Your task to perform on an android device: change the clock style Image 0: 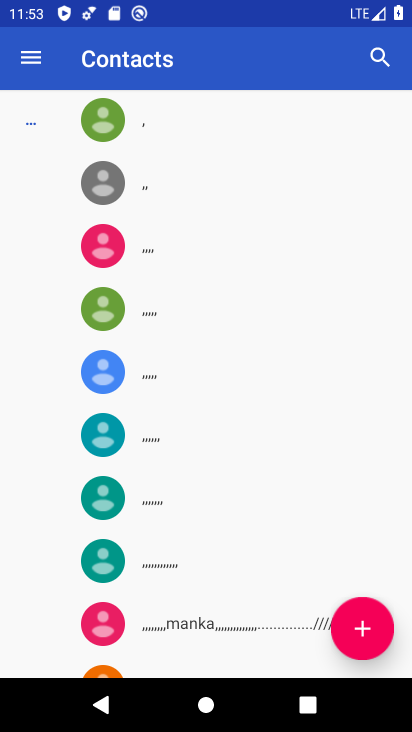
Step 0: press home button
Your task to perform on an android device: change the clock style Image 1: 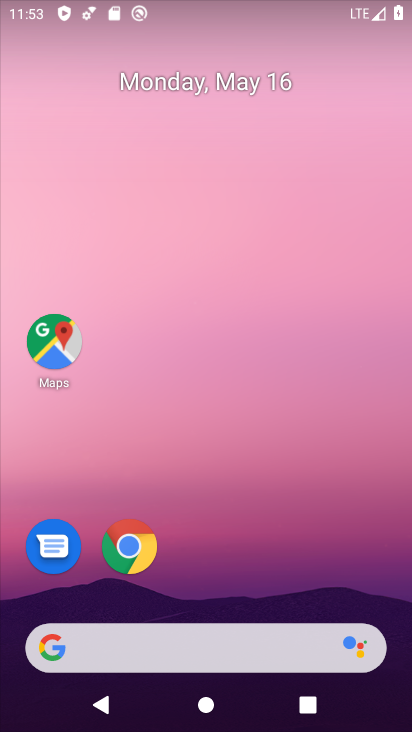
Step 1: drag from (397, 617) to (335, 65)
Your task to perform on an android device: change the clock style Image 2: 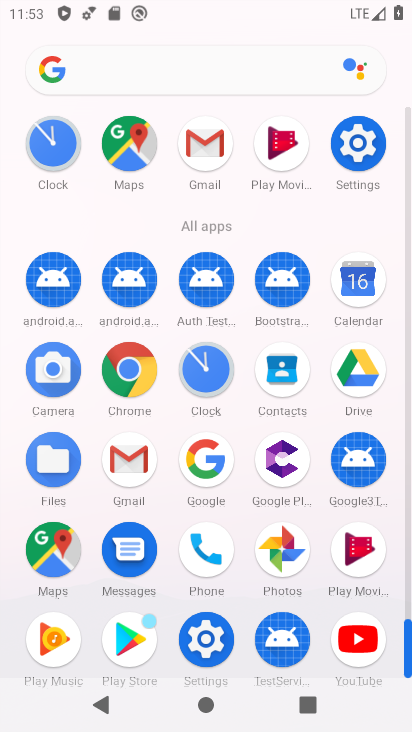
Step 2: click (206, 371)
Your task to perform on an android device: change the clock style Image 3: 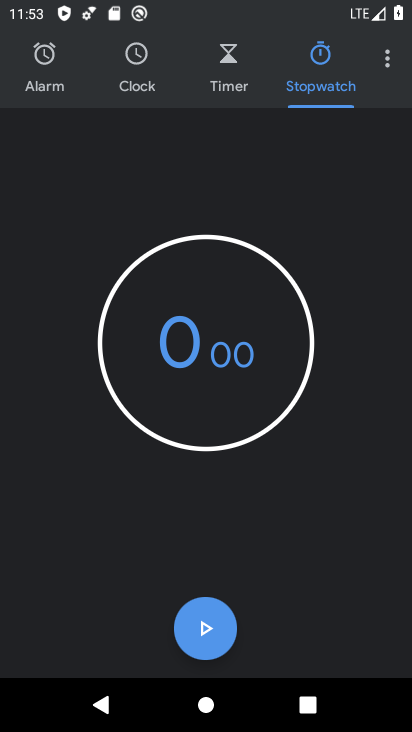
Step 3: click (387, 65)
Your task to perform on an android device: change the clock style Image 4: 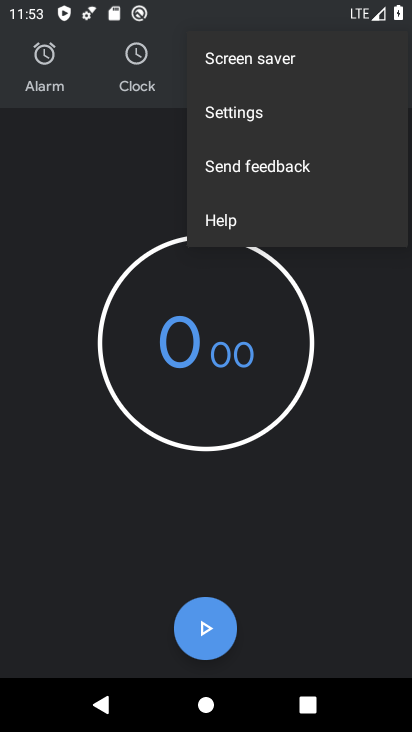
Step 4: click (219, 112)
Your task to perform on an android device: change the clock style Image 5: 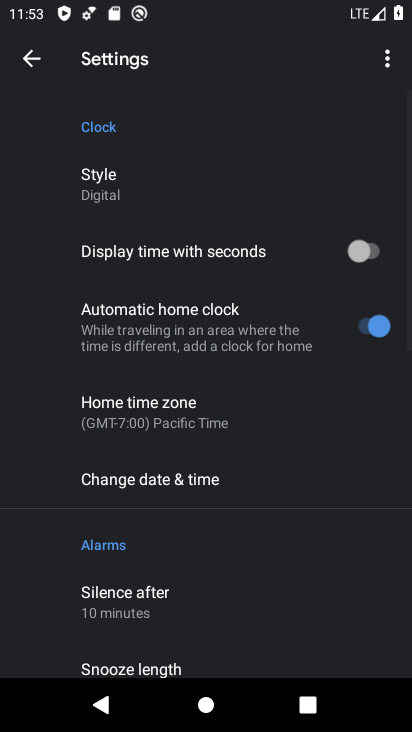
Step 5: click (98, 197)
Your task to perform on an android device: change the clock style Image 6: 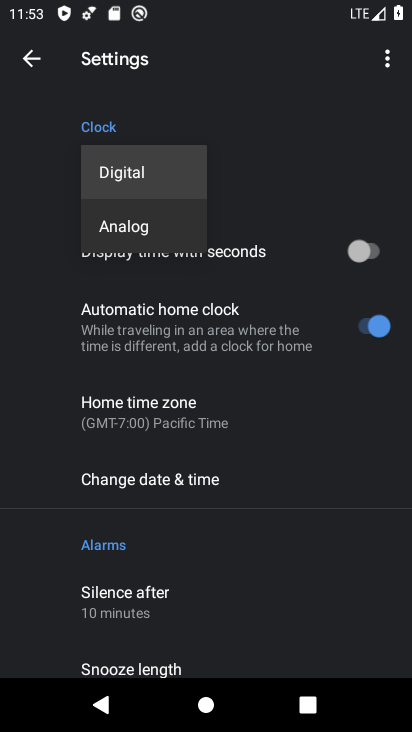
Step 6: click (115, 221)
Your task to perform on an android device: change the clock style Image 7: 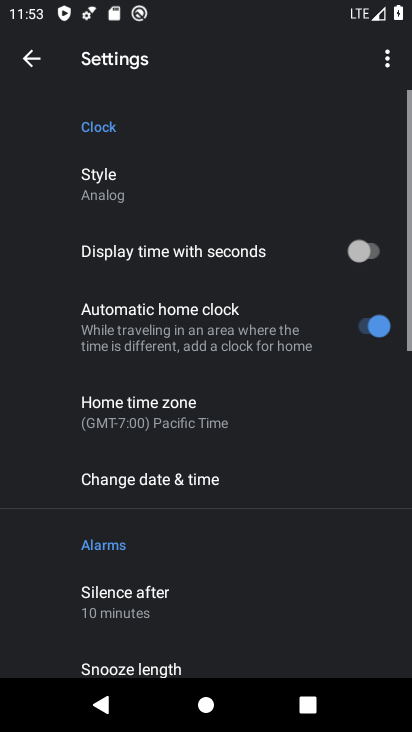
Step 7: task complete